Your task to perform on an android device: Open the calendar and show me this week's events? Image 0: 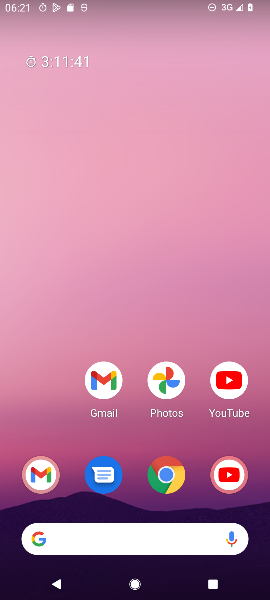
Step 0: drag from (66, 439) to (58, 203)
Your task to perform on an android device: Open the calendar and show me this week's events? Image 1: 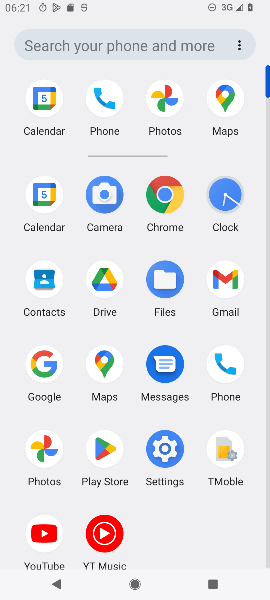
Step 1: click (38, 204)
Your task to perform on an android device: Open the calendar and show me this week's events? Image 2: 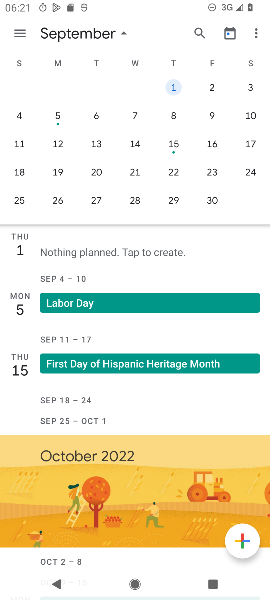
Step 2: task complete